Your task to perform on an android device: Go to eBay Image 0: 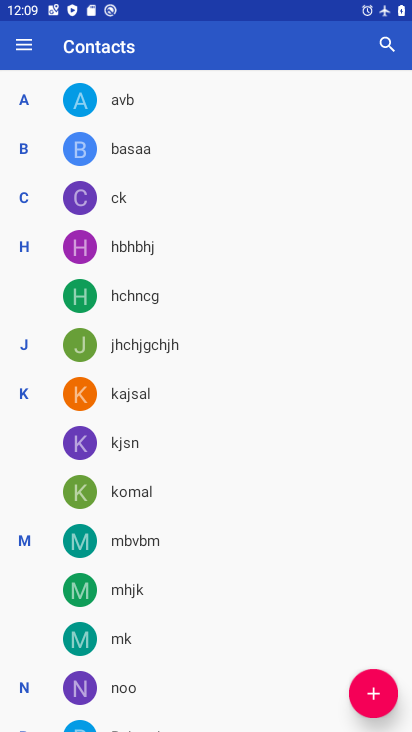
Step 0: press home button
Your task to perform on an android device: Go to eBay Image 1: 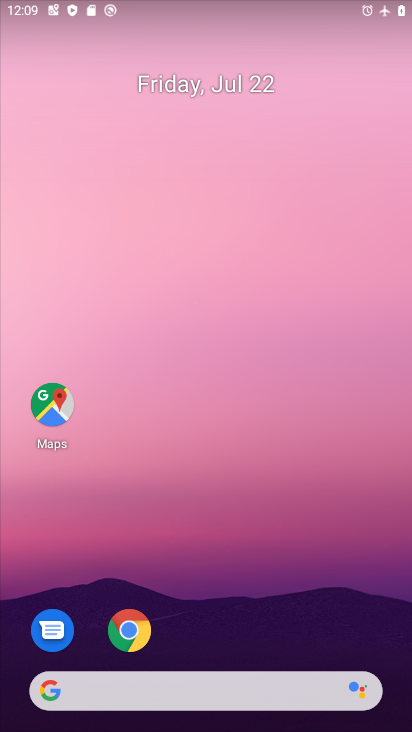
Step 1: click (136, 629)
Your task to perform on an android device: Go to eBay Image 2: 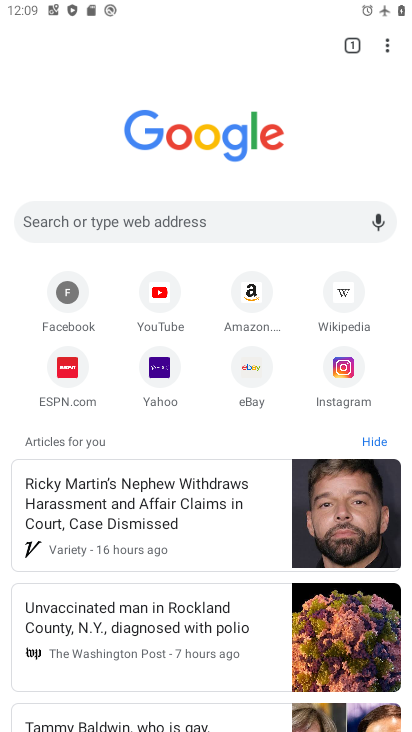
Step 2: click (259, 368)
Your task to perform on an android device: Go to eBay Image 3: 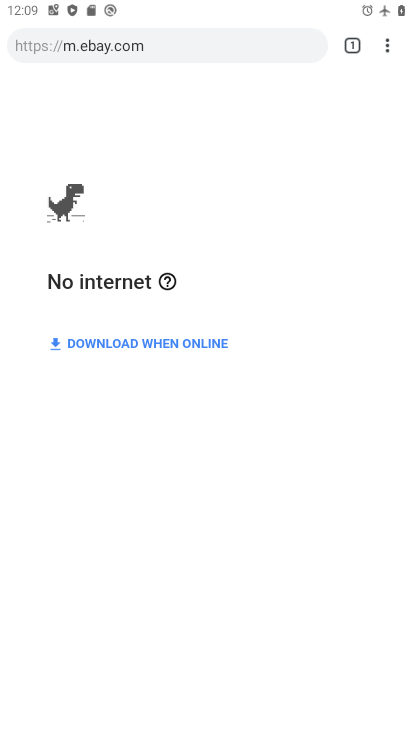
Step 3: task complete